Your task to perform on an android device: turn off sleep mode Image 0: 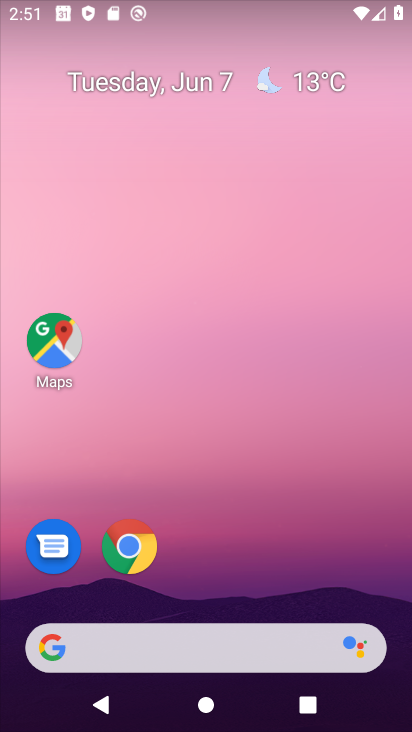
Step 0: drag from (230, 587) to (230, 247)
Your task to perform on an android device: turn off sleep mode Image 1: 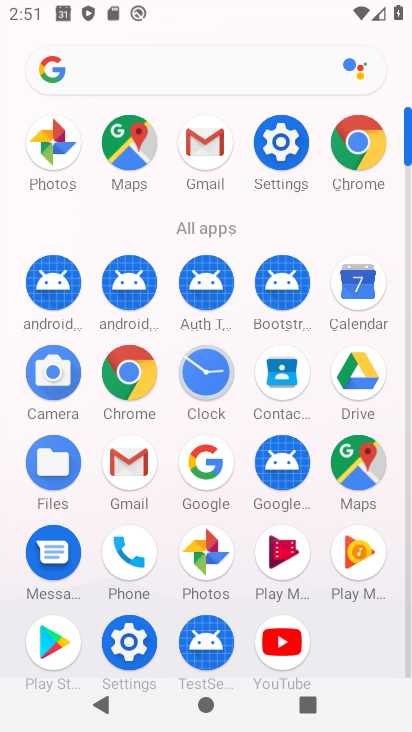
Step 1: click (276, 145)
Your task to perform on an android device: turn off sleep mode Image 2: 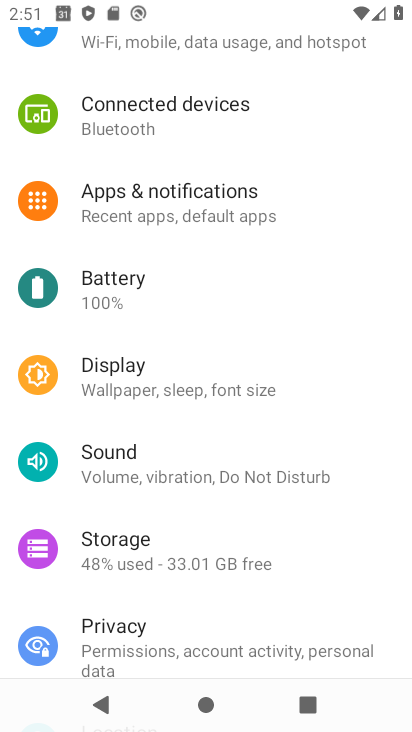
Step 2: click (114, 375)
Your task to perform on an android device: turn off sleep mode Image 3: 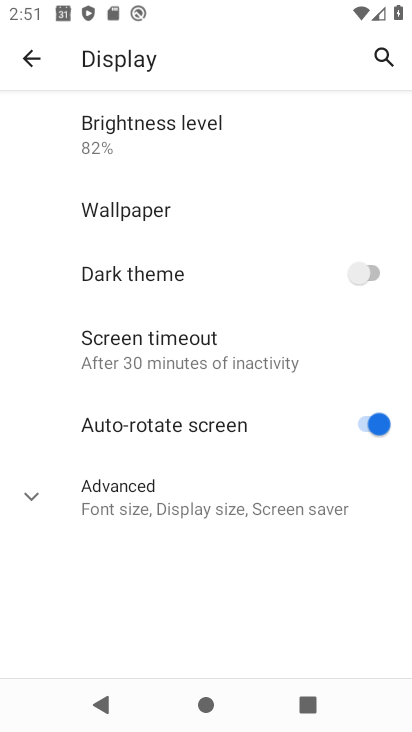
Step 3: task complete